Your task to perform on an android device: search for starred emails in the gmail app Image 0: 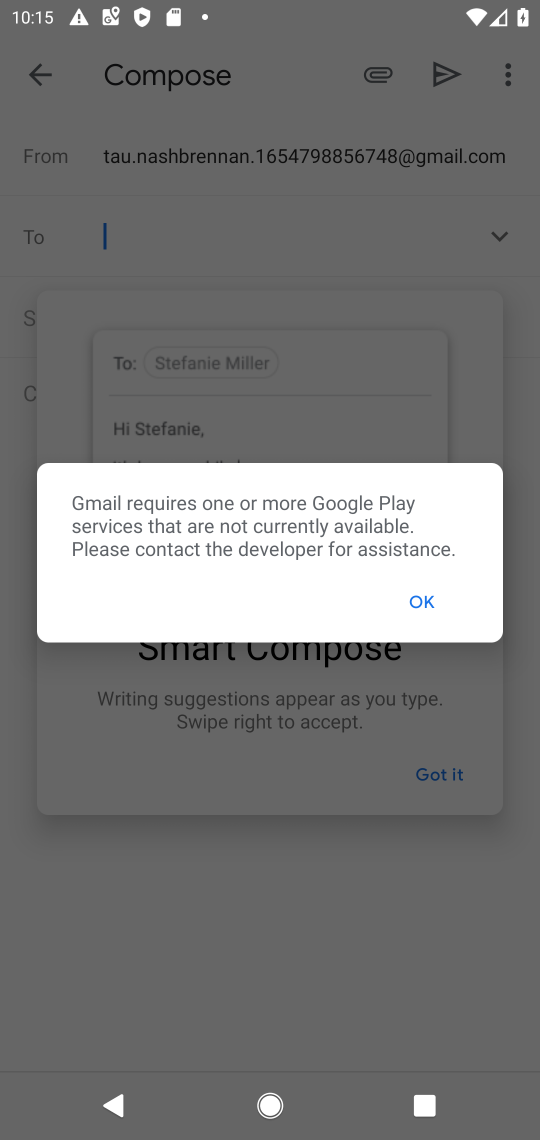
Step 0: press home button
Your task to perform on an android device: search for starred emails in the gmail app Image 1: 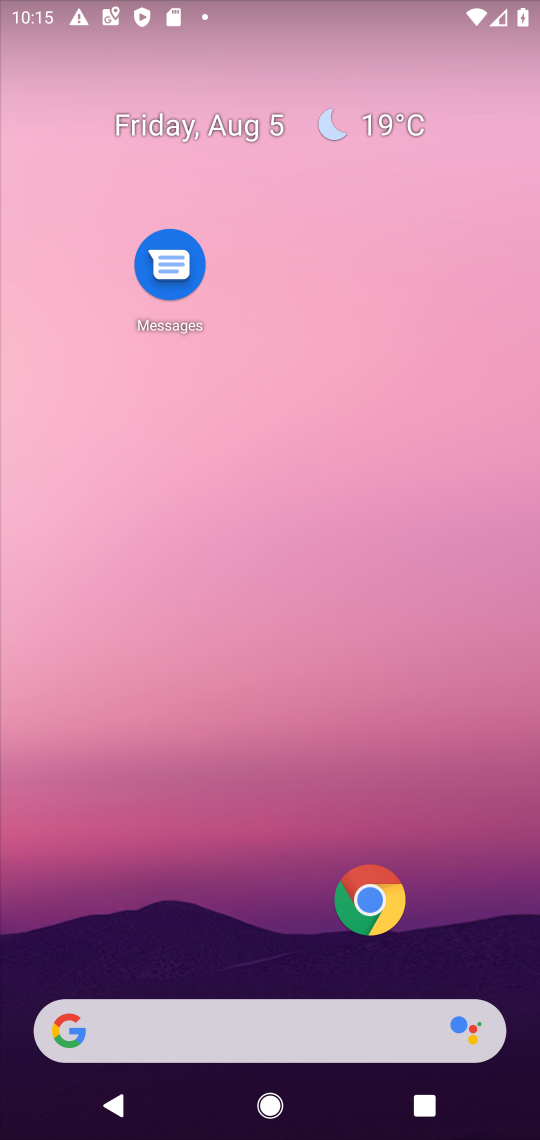
Step 1: drag from (245, 908) to (258, 68)
Your task to perform on an android device: search for starred emails in the gmail app Image 2: 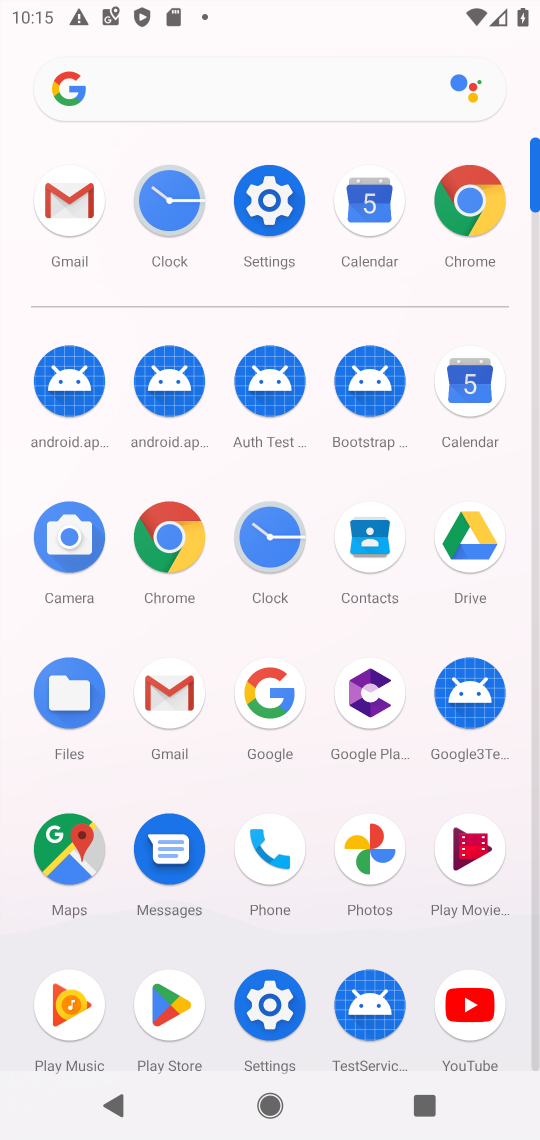
Step 2: click (170, 683)
Your task to perform on an android device: search for starred emails in the gmail app Image 3: 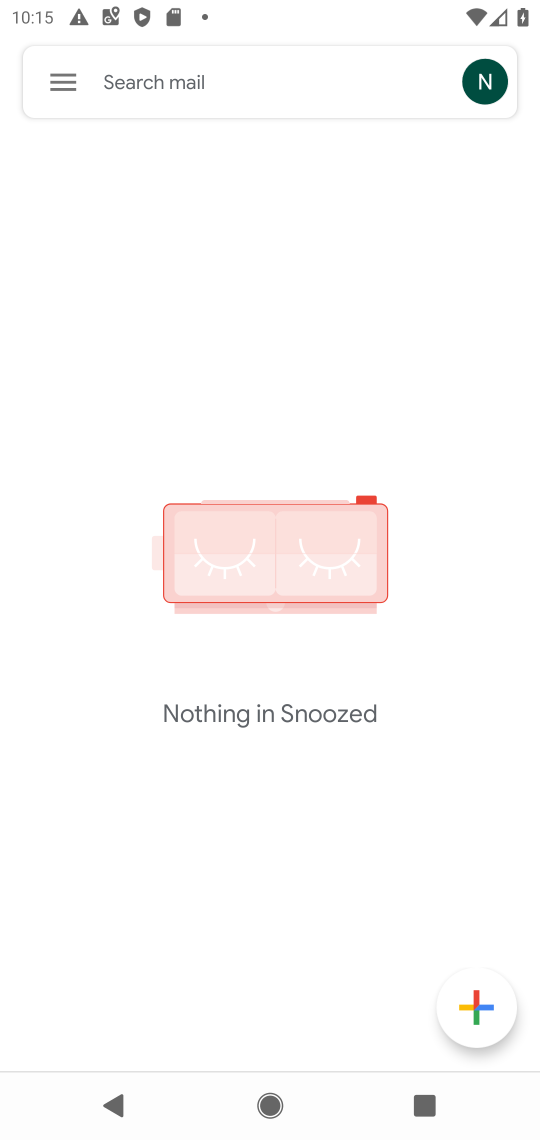
Step 3: click (57, 81)
Your task to perform on an android device: search for starred emails in the gmail app Image 4: 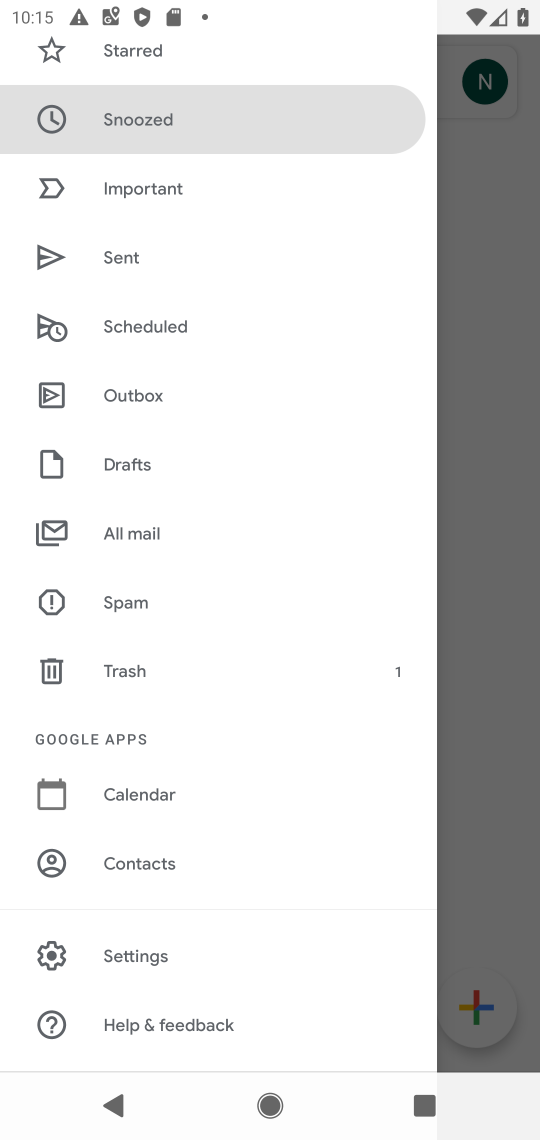
Step 4: drag from (208, 270) to (189, 666)
Your task to perform on an android device: search for starred emails in the gmail app Image 5: 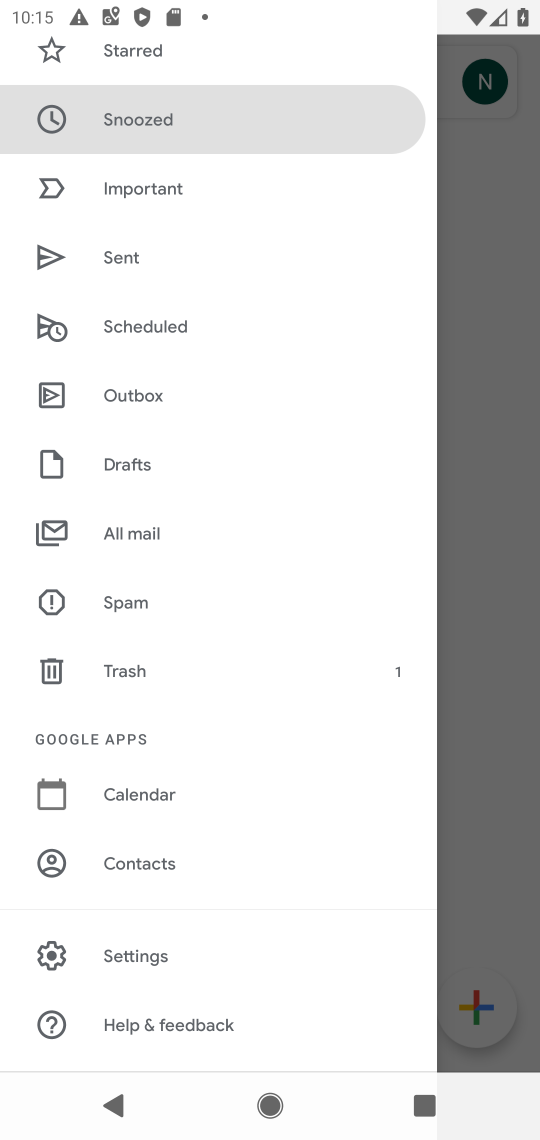
Step 5: click (127, 47)
Your task to perform on an android device: search for starred emails in the gmail app Image 6: 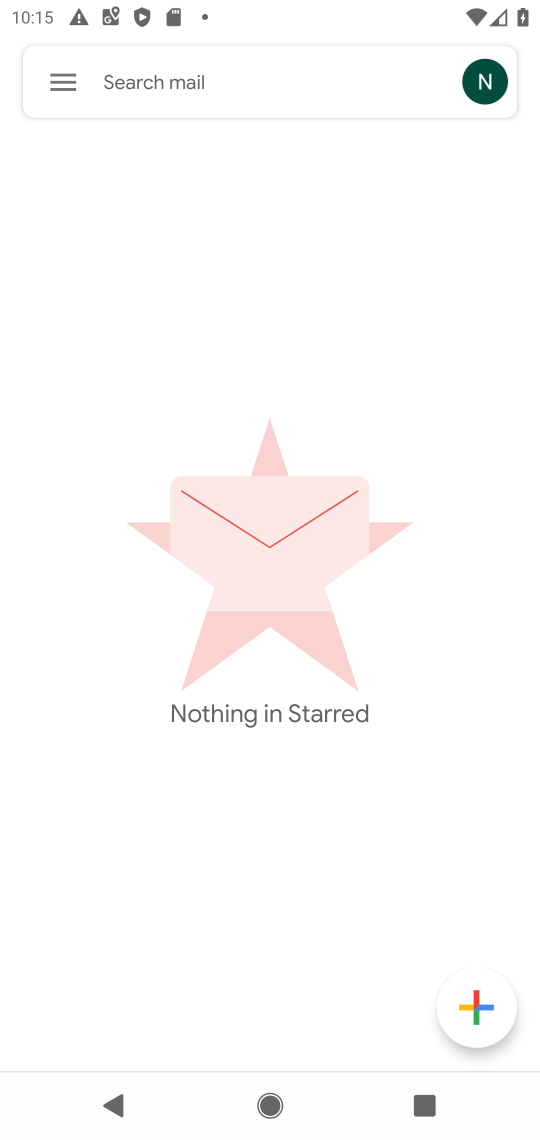
Step 6: task complete